Your task to perform on an android device: When is my next appointment? Image 0: 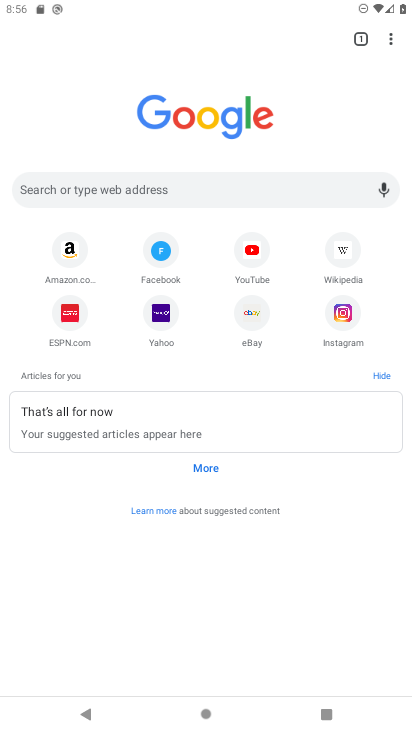
Step 0: press home button
Your task to perform on an android device: When is my next appointment? Image 1: 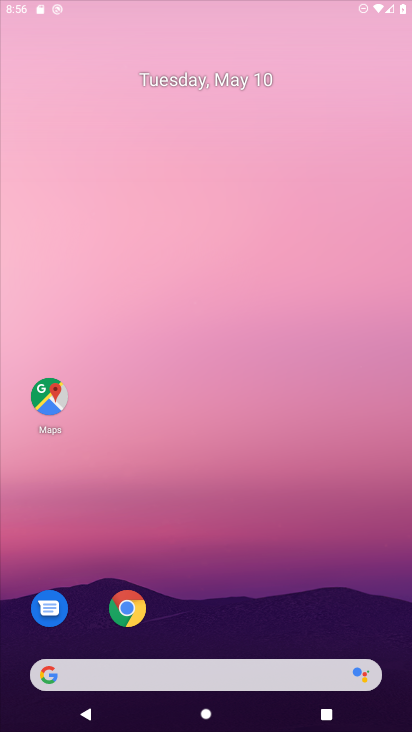
Step 1: drag from (368, 636) to (315, 27)
Your task to perform on an android device: When is my next appointment? Image 2: 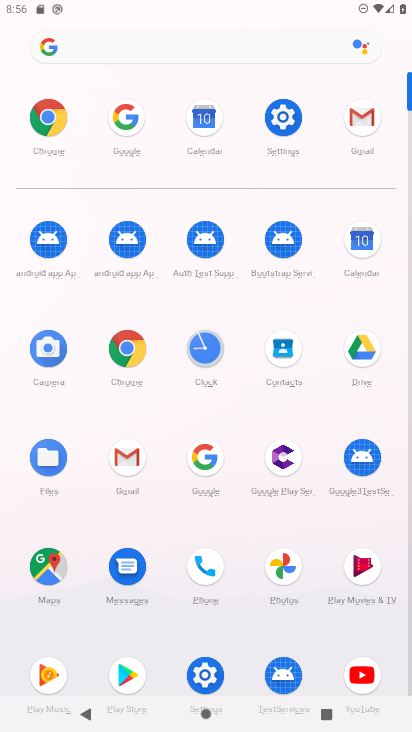
Step 2: click (374, 236)
Your task to perform on an android device: When is my next appointment? Image 3: 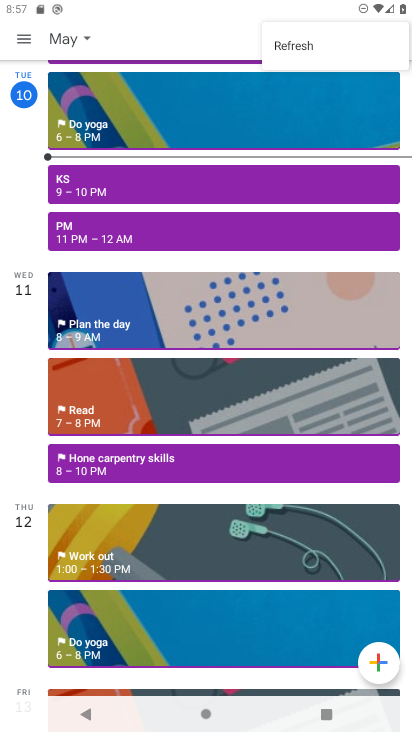
Step 3: task complete